Your task to perform on an android device: Go to battery settings Image 0: 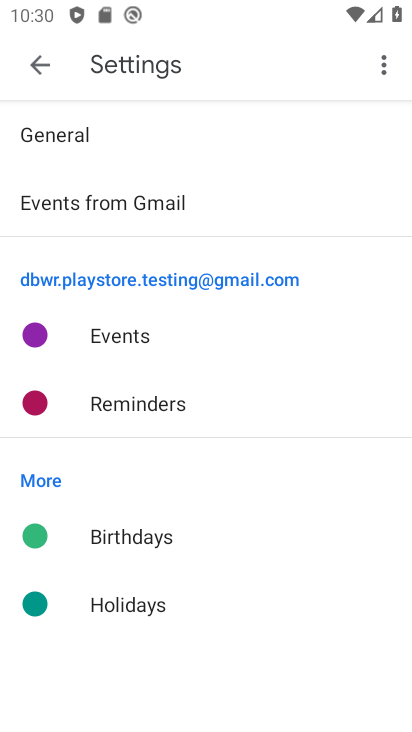
Step 0: click (32, 55)
Your task to perform on an android device: Go to battery settings Image 1: 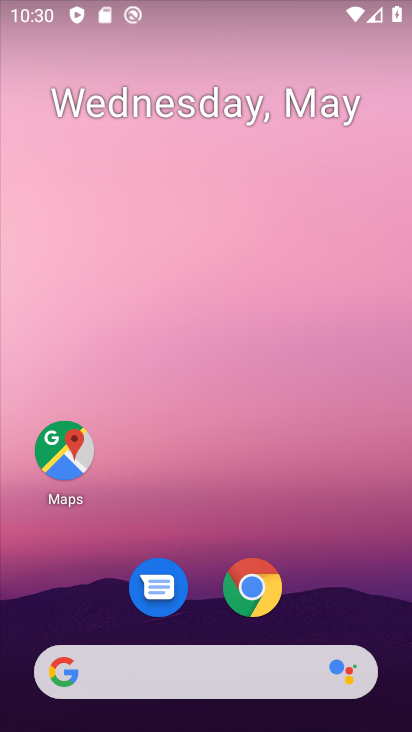
Step 1: drag from (182, 522) to (254, 32)
Your task to perform on an android device: Go to battery settings Image 2: 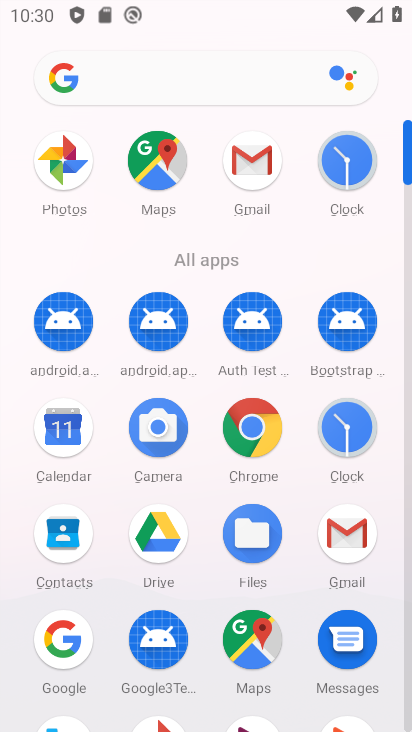
Step 2: drag from (183, 602) to (263, 85)
Your task to perform on an android device: Go to battery settings Image 3: 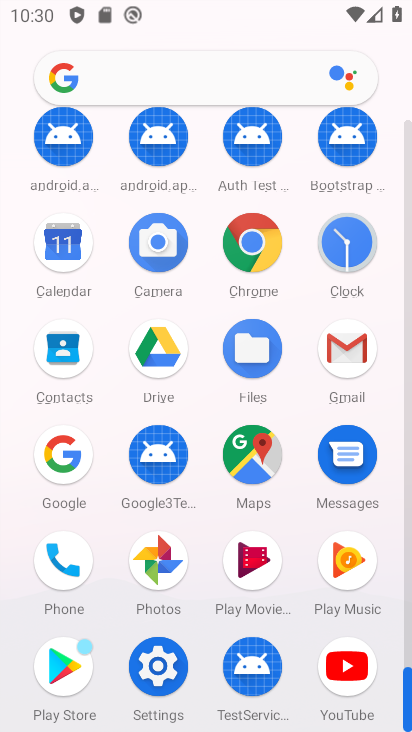
Step 3: click (154, 645)
Your task to perform on an android device: Go to battery settings Image 4: 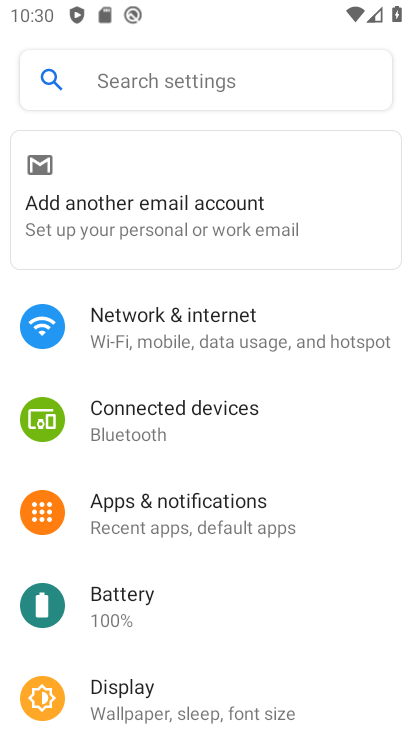
Step 4: click (133, 604)
Your task to perform on an android device: Go to battery settings Image 5: 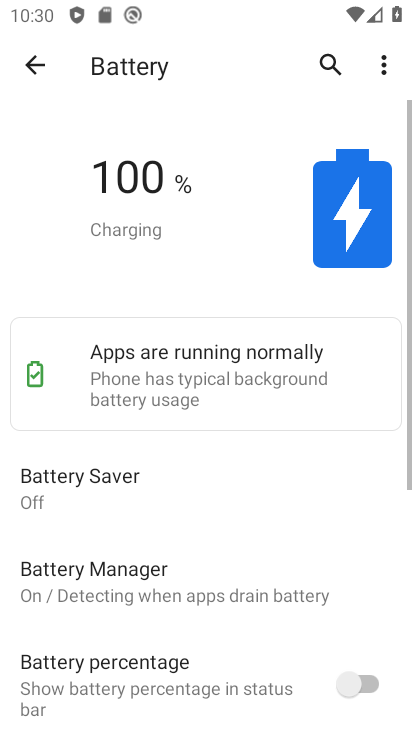
Step 5: task complete